Your task to perform on an android device: set the timer Image 0: 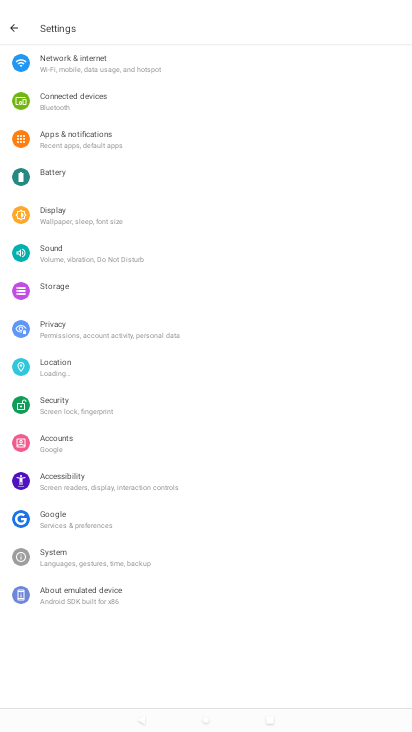
Step 0: drag from (348, 653) to (268, 115)
Your task to perform on an android device: set the timer Image 1: 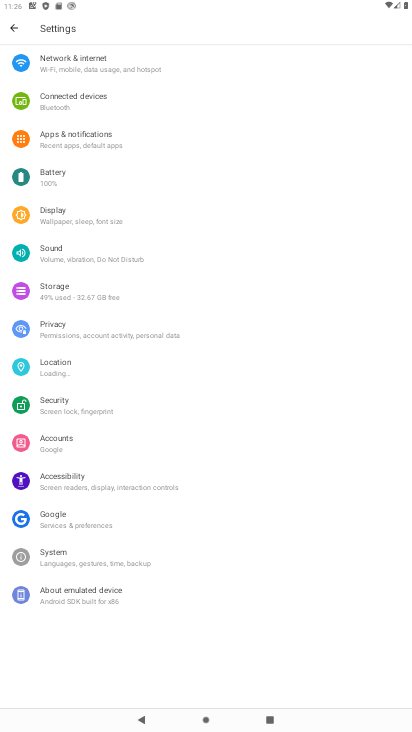
Step 1: press home button
Your task to perform on an android device: set the timer Image 2: 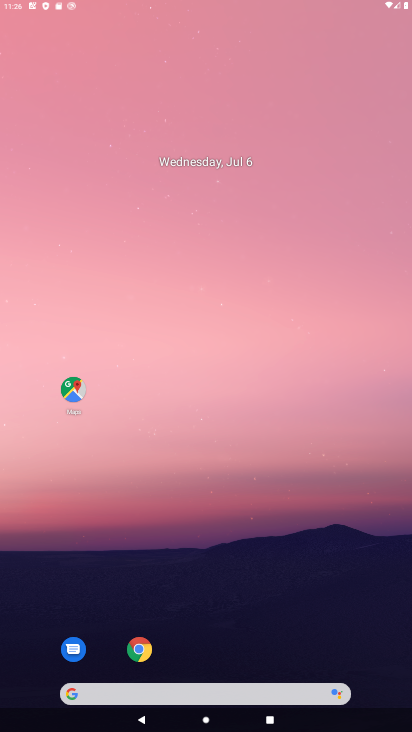
Step 2: drag from (343, 635) to (181, 26)
Your task to perform on an android device: set the timer Image 3: 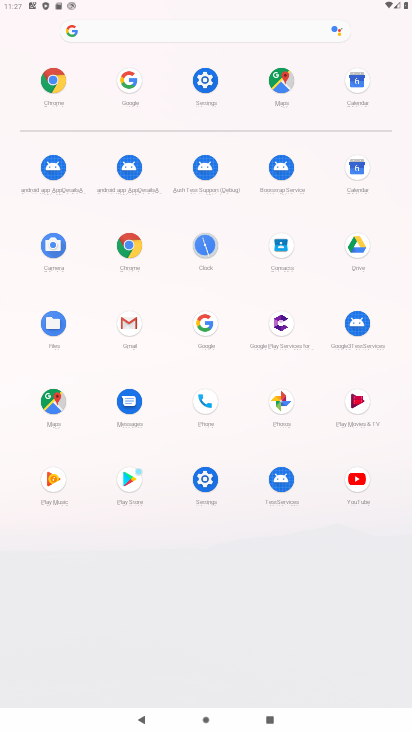
Step 3: click (211, 242)
Your task to perform on an android device: set the timer Image 4: 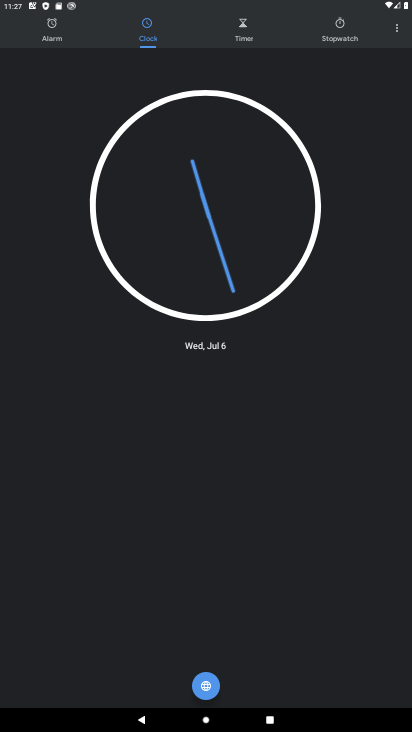
Step 4: click (57, 26)
Your task to perform on an android device: set the timer Image 5: 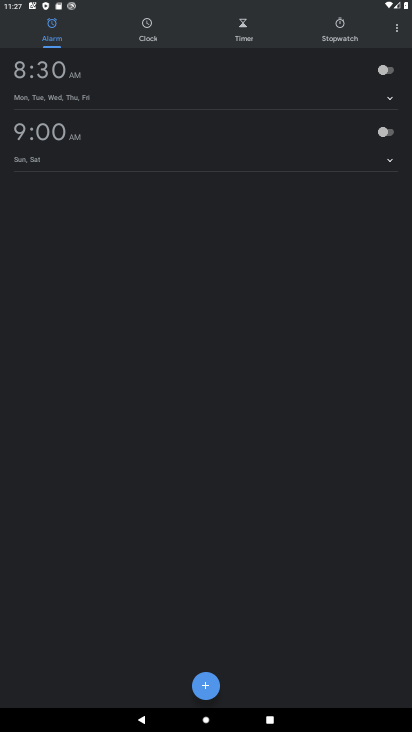
Step 5: click (245, 22)
Your task to perform on an android device: set the timer Image 6: 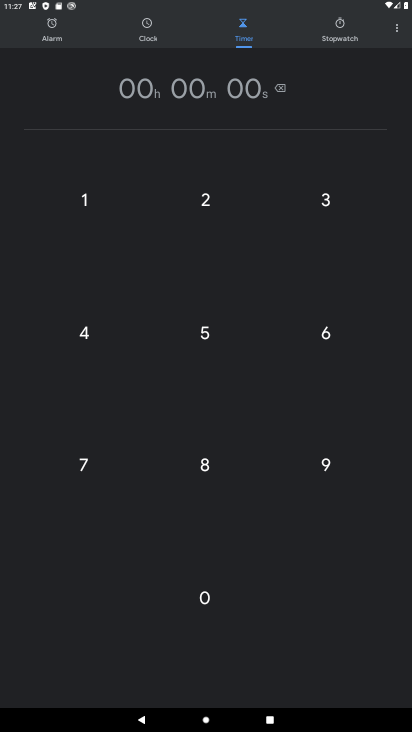
Step 6: click (248, 91)
Your task to perform on an android device: set the timer Image 7: 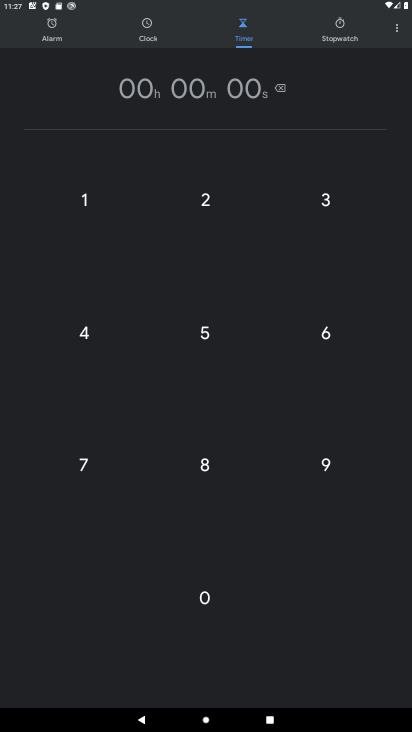
Step 7: click (212, 320)
Your task to perform on an android device: set the timer Image 8: 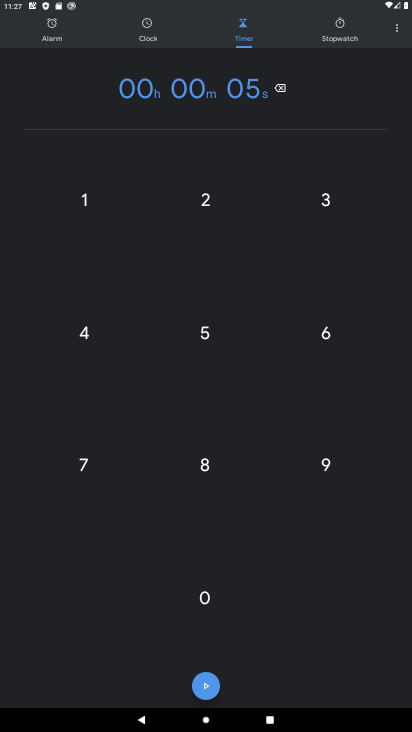
Step 8: click (207, 476)
Your task to perform on an android device: set the timer Image 9: 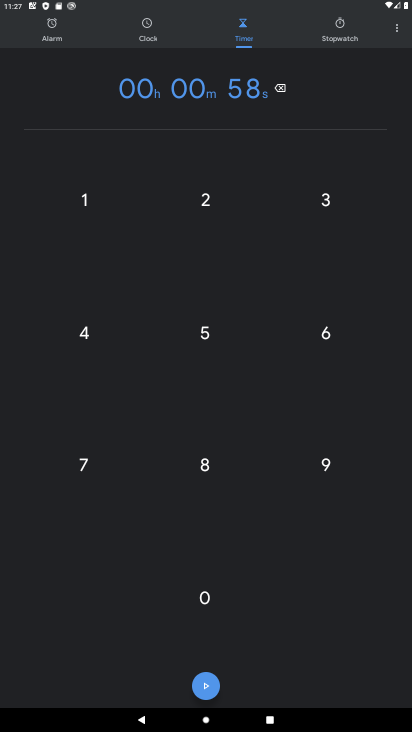
Step 9: click (132, 81)
Your task to perform on an android device: set the timer Image 10: 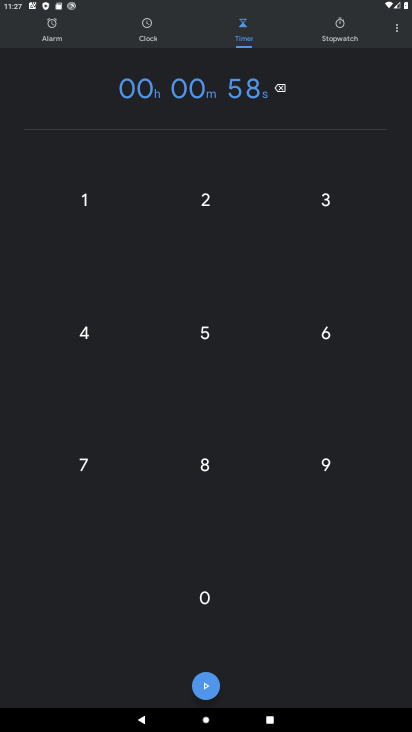
Step 10: click (71, 200)
Your task to perform on an android device: set the timer Image 11: 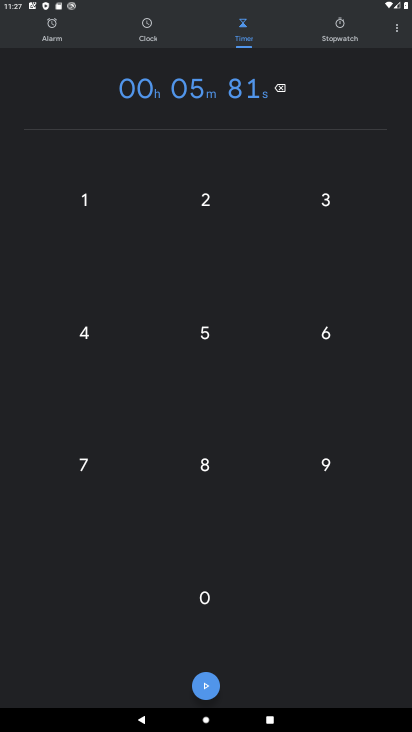
Step 11: task complete